Your task to perform on an android device: change the upload size in google photos Image 0: 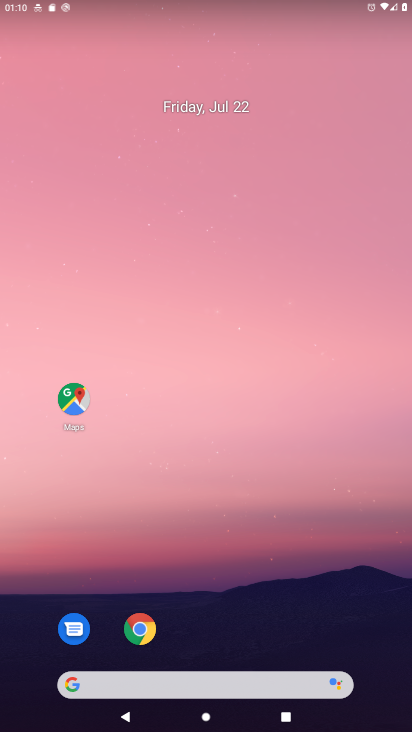
Step 0: drag from (223, 663) to (211, 213)
Your task to perform on an android device: change the upload size in google photos Image 1: 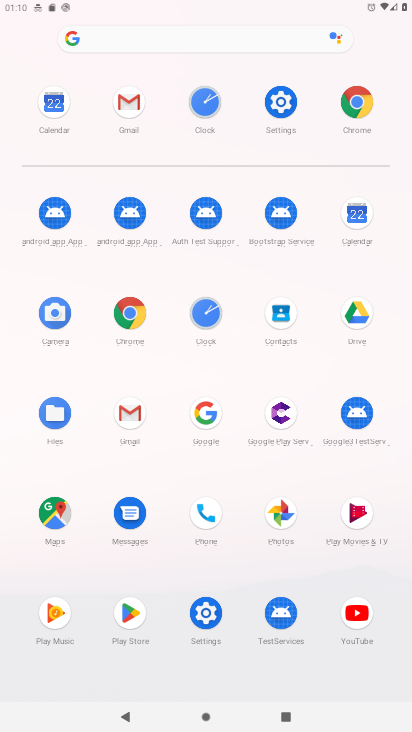
Step 1: click (275, 518)
Your task to perform on an android device: change the upload size in google photos Image 2: 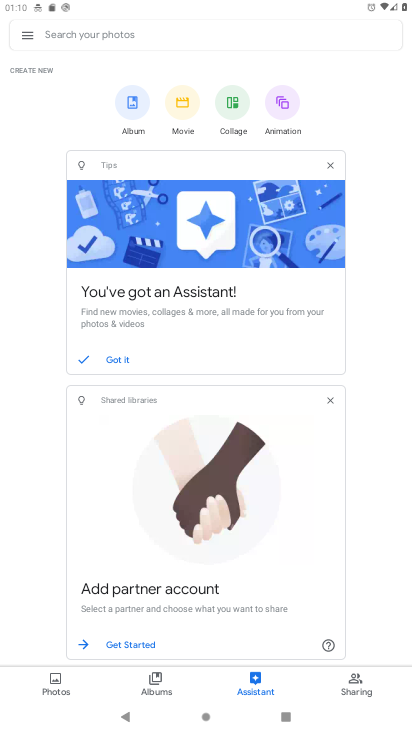
Step 2: click (35, 32)
Your task to perform on an android device: change the upload size in google photos Image 3: 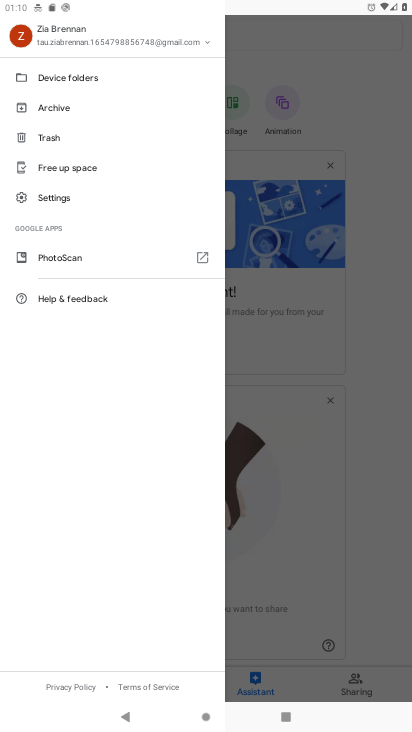
Step 3: click (43, 199)
Your task to perform on an android device: change the upload size in google photos Image 4: 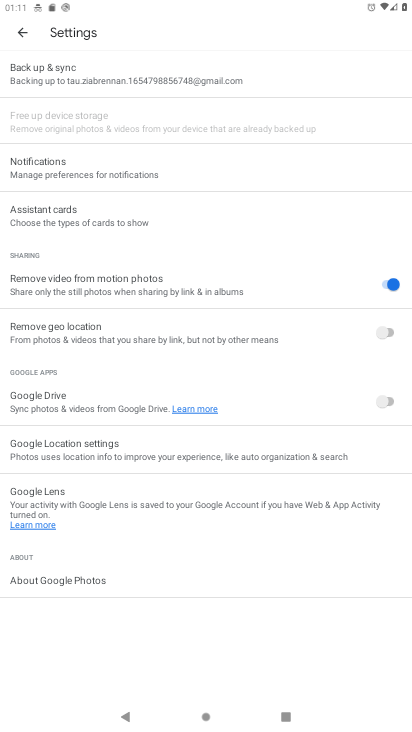
Step 4: click (121, 67)
Your task to perform on an android device: change the upload size in google photos Image 5: 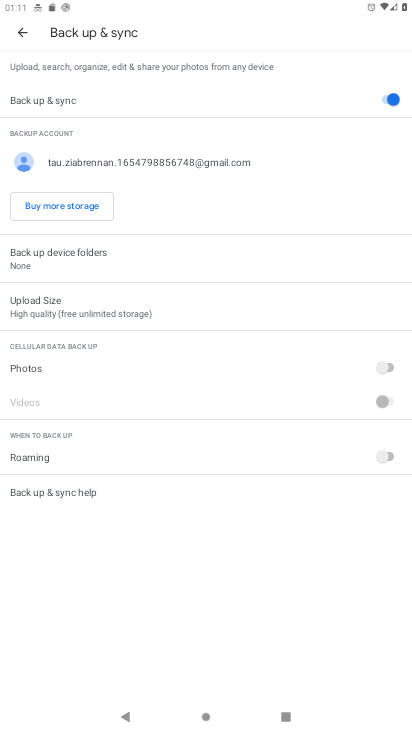
Step 5: click (99, 299)
Your task to perform on an android device: change the upload size in google photos Image 6: 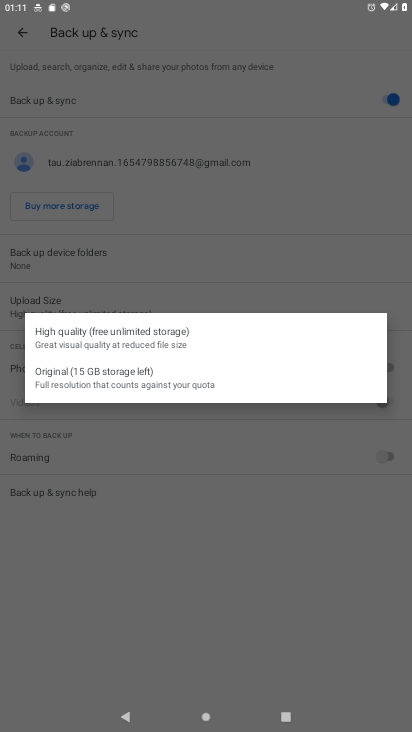
Step 6: click (99, 368)
Your task to perform on an android device: change the upload size in google photos Image 7: 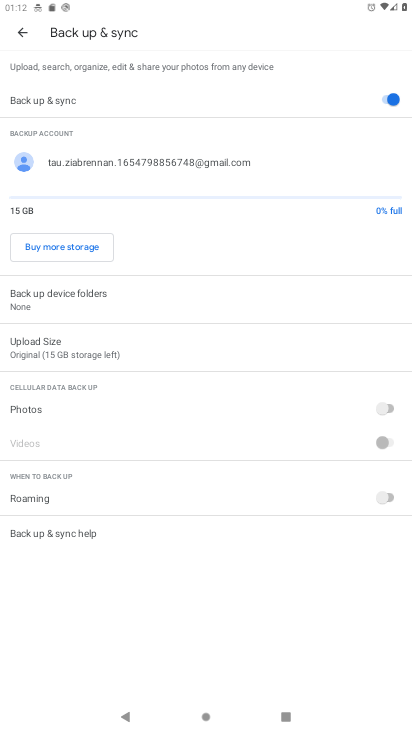
Step 7: task complete